Your task to perform on an android device: turn on javascript in the chrome app Image 0: 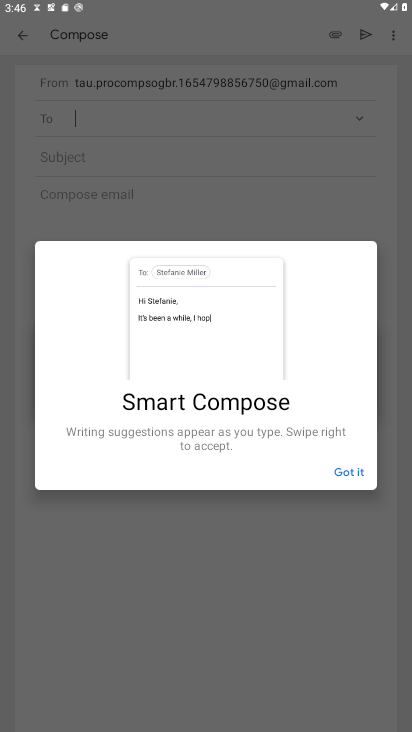
Step 0: press home button
Your task to perform on an android device: turn on javascript in the chrome app Image 1: 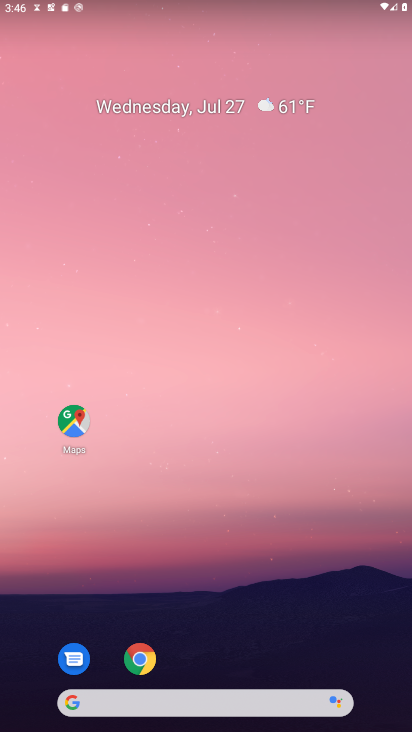
Step 1: click (135, 649)
Your task to perform on an android device: turn on javascript in the chrome app Image 2: 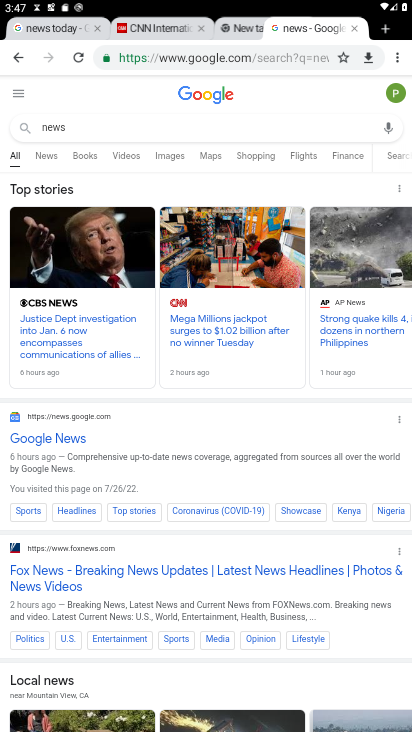
Step 2: drag from (401, 57) to (288, 351)
Your task to perform on an android device: turn on javascript in the chrome app Image 3: 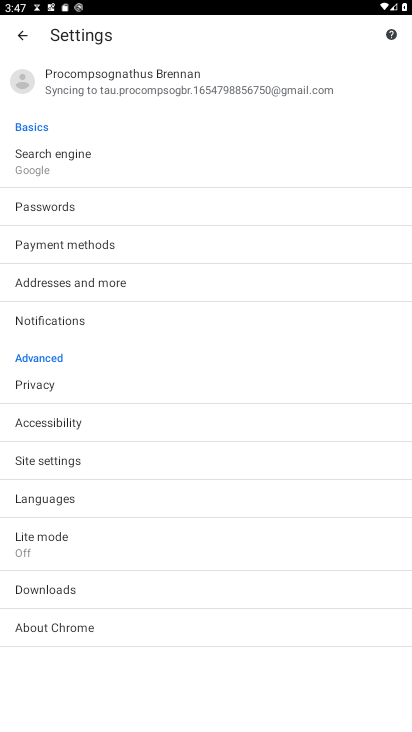
Step 3: click (71, 468)
Your task to perform on an android device: turn on javascript in the chrome app Image 4: 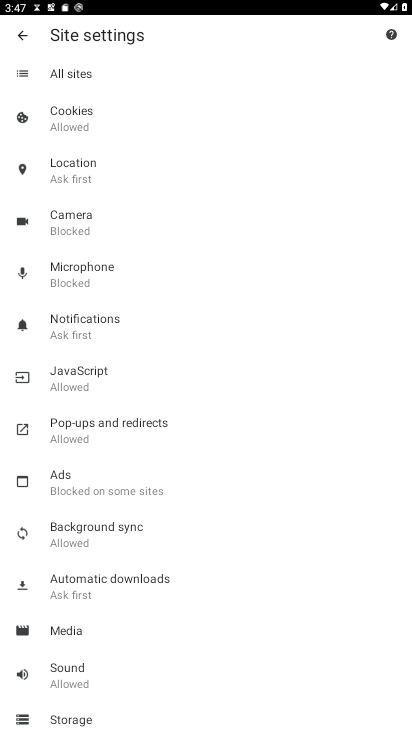
Step 4: click (48, 375)
Your task to perform on an android device: turn on javascript in the chrome app Image 5: 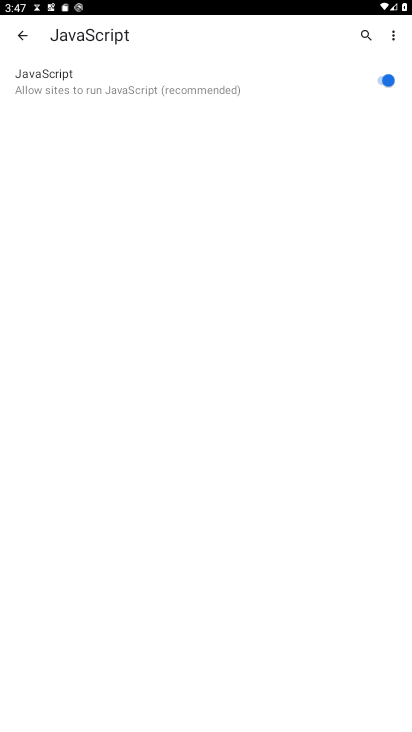
Step 5: task complete